Your task to perform on an android device: Search for seafood restaurants on Google Maps Image 0: 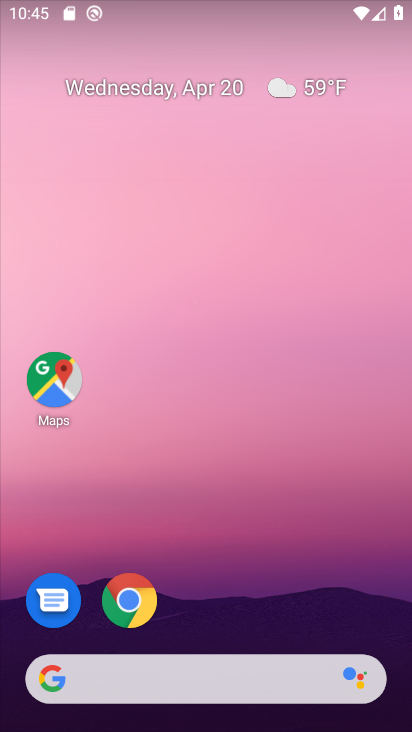
Step 0: click (60, 379)
Your task to perform on an android device: Search for seafood restaurants on Google Maps Image 1: 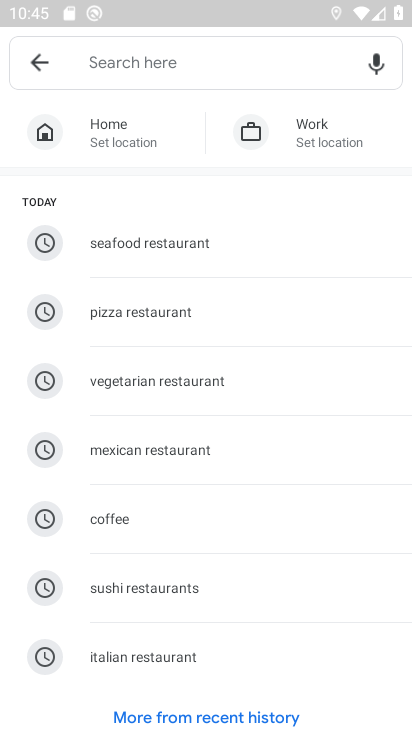
Step 1: click (165, 236)
Your task to perform on an android device: Search for seafood restaurants on Google Maps Image 2: 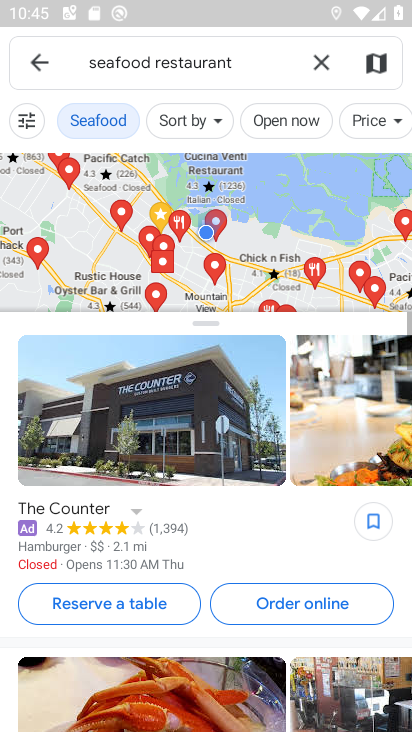
Step 2: task complete